Your task to perform on an android device: Search for Italian restaurants on Maps Image 0: 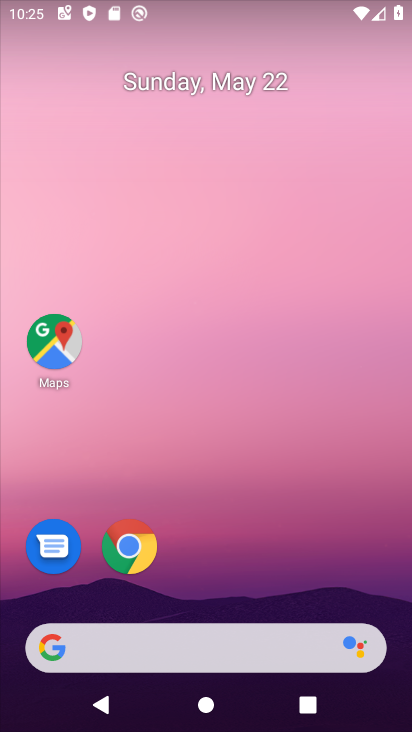
Step 0: click (59, 340)
Your task to perform on an android device: Search for Italian restaurants on Maps Image 1: 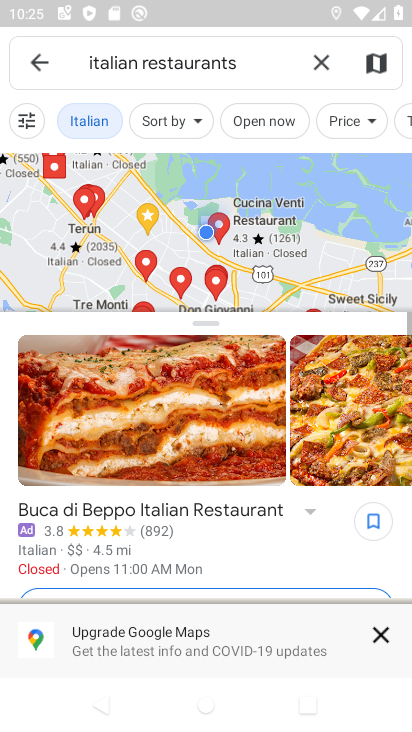
Step 1: click (386, 633)
Your task to perform on an android device: Search for Italian restaurants on Maps Image 2: 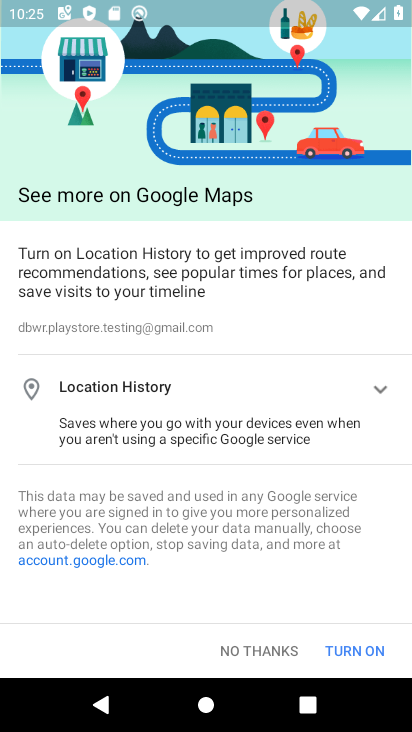
Step 2: click (240, 661)
Your task to perform on an android device: Search for Italian restaurants on Maps Image 3: 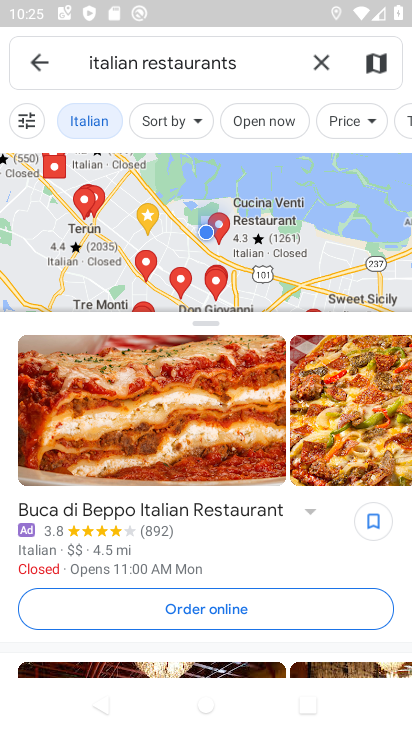
Step 3: task complete